Your task to perform on an android device: turn on priority inbox in the gmail app Image 0: 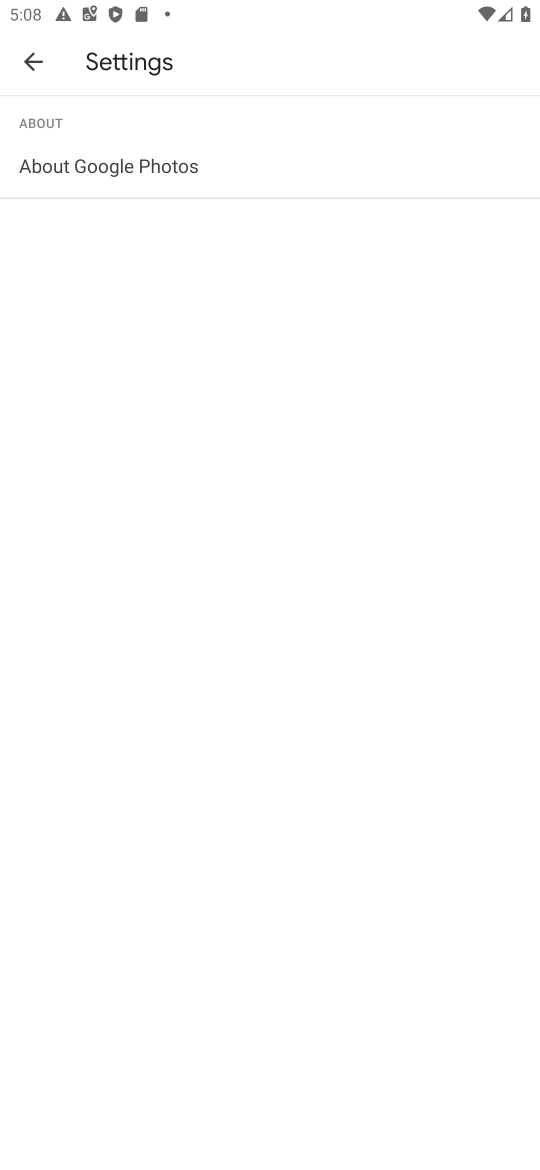
Step 0: press home button
Your task to perform on an android device: turn on priority inbox in the gmail app Image 1: 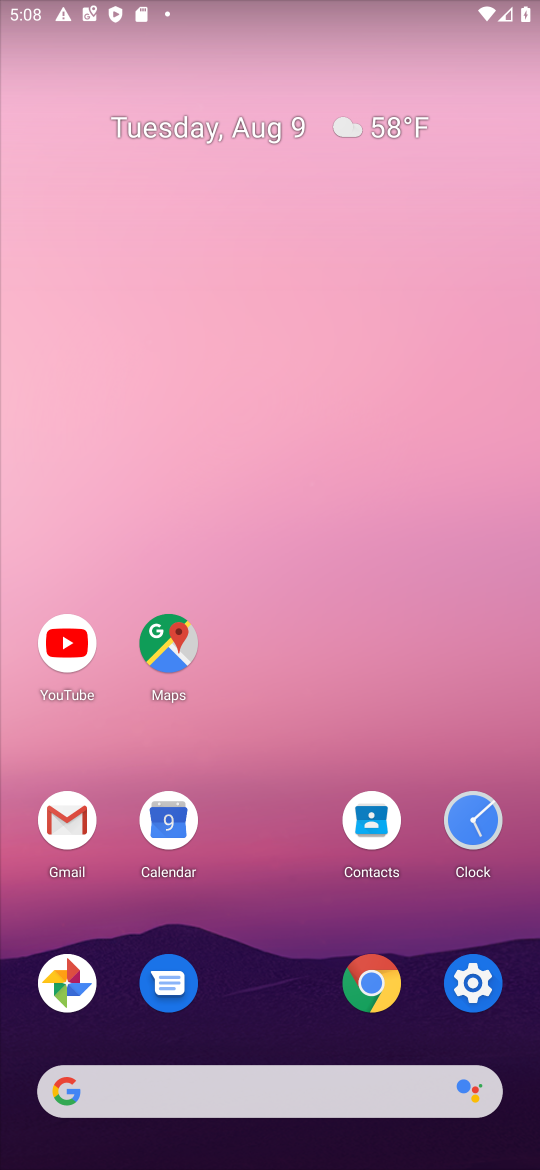
Step 1: click (66, 813)
Your task to perform on an android device: turn on priority inbox in the gmail app Image 2: 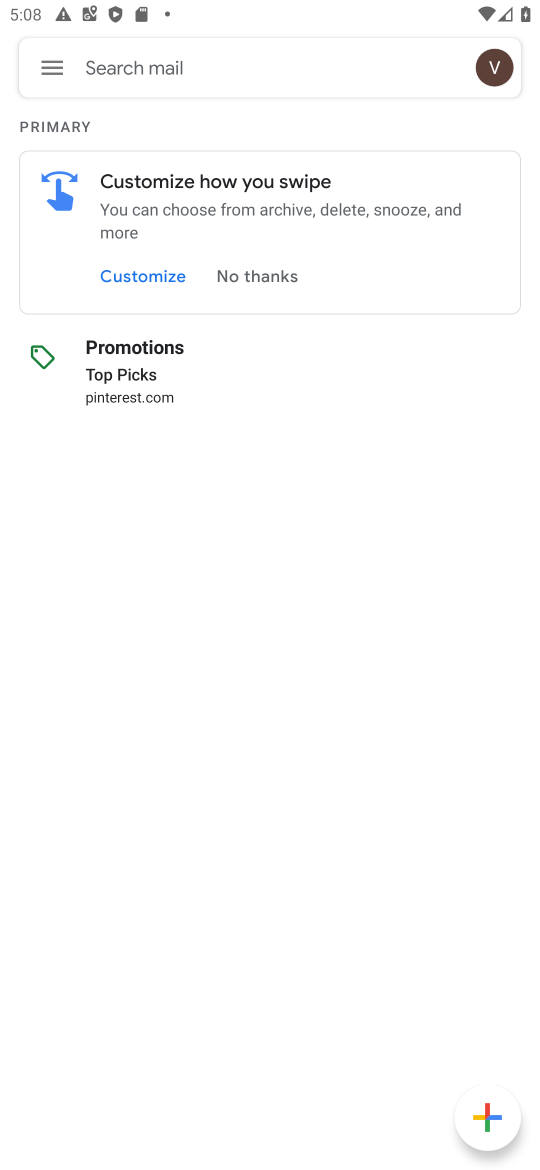
Step 2: click (44, 64)
Your task to perform on an android device: turn on priority inbox in the gmail app Image 3: 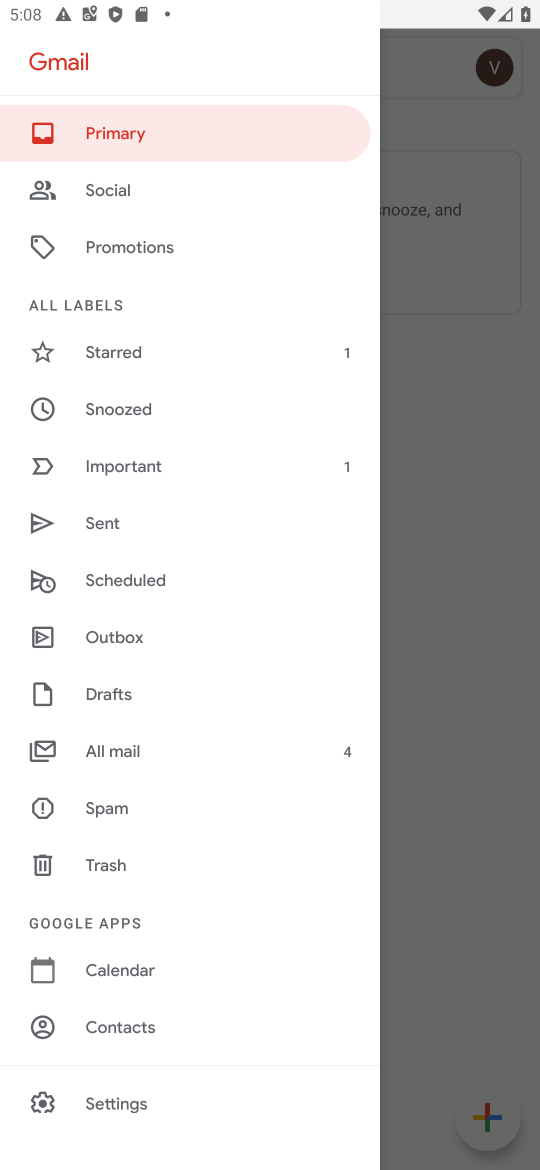
Step 3: click (112, 1099)
Your task to perform on an android device: turn on priority inbox in the gmail app Image 4: 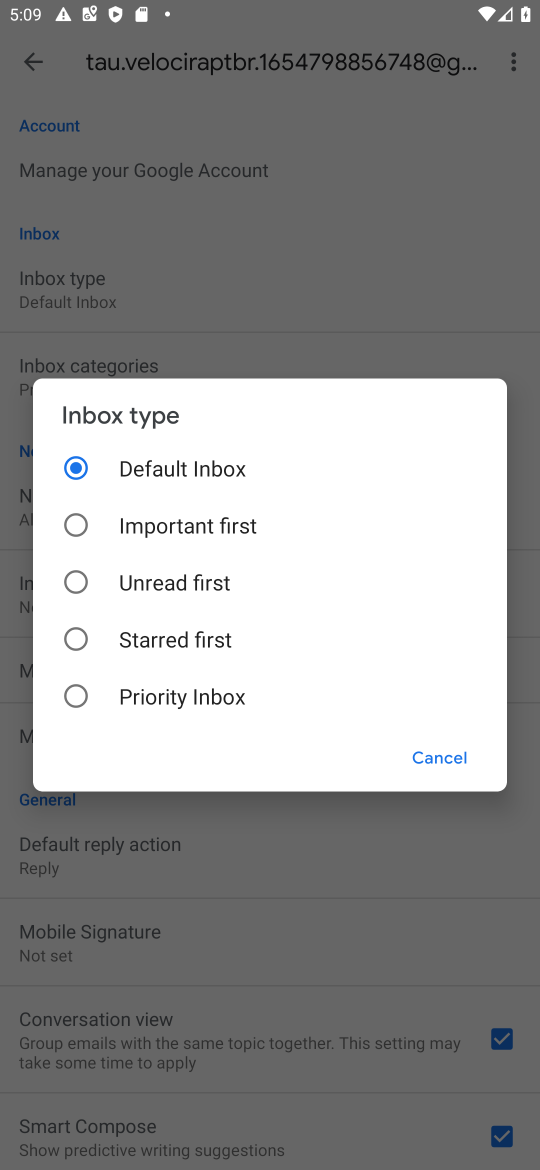
Step 4: click (76, 696)
Your task to perform on an android device: turn on priority inbox in the gmail app Image 5: 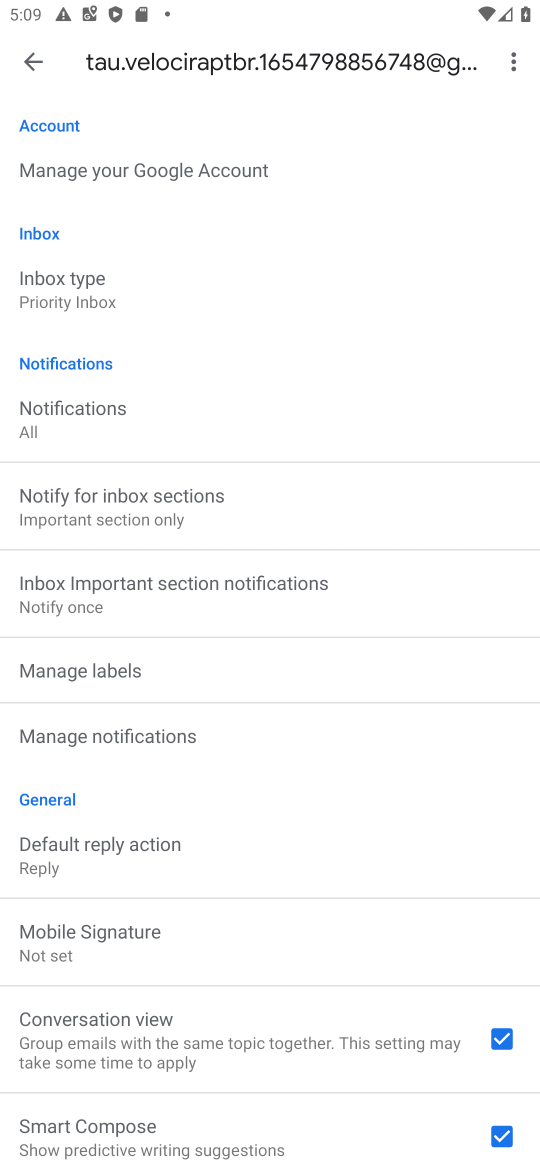
Step 5: task complete